Your task to perform on an android device: Open display settings Image 0: 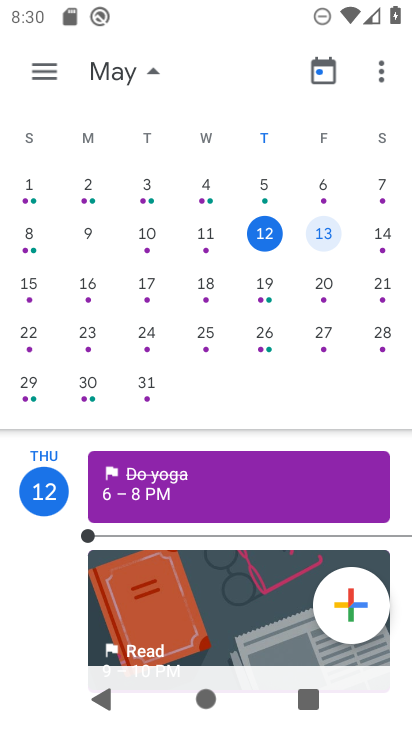
Step 0: press home button
Your task to perform on an android device: Open display settings Image 1: 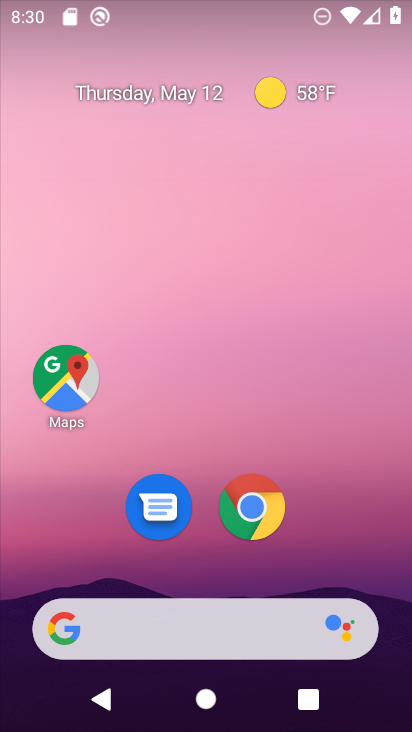
Step 1: drag from (190, 559) to (184, 267)
Your task to perform on an android device: Open display settings Image 2: 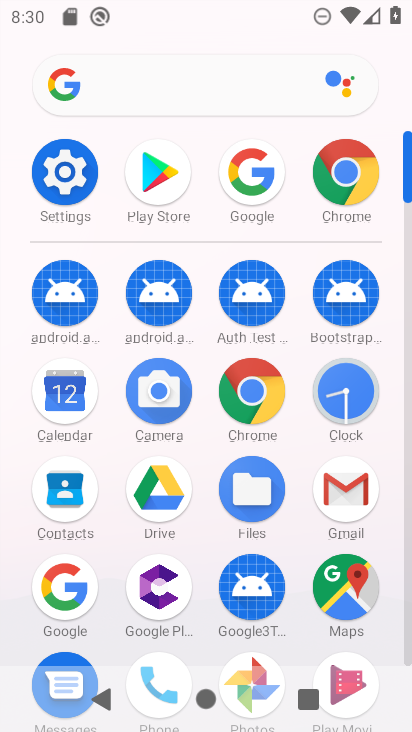
Step 2: click (71, 176)
Your task to perform on an android device: Open display settings Image 3: 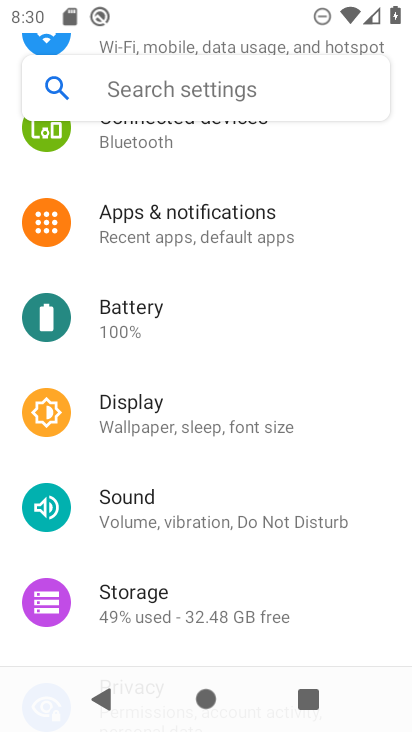
Step 3: click (157, 415)
Your task to perform on an android device: Open display settings Image 4: 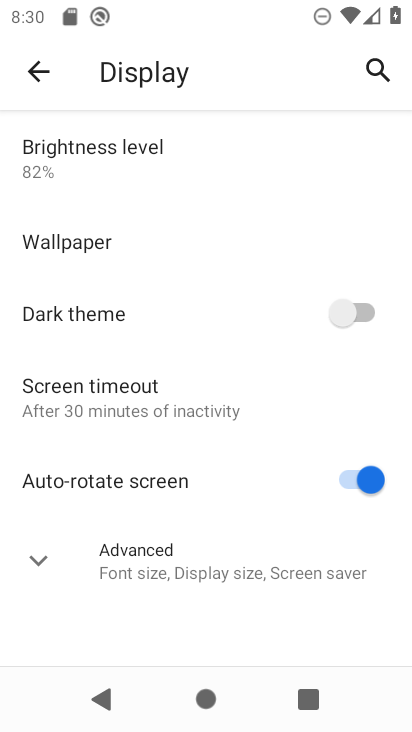
Step 4: task complete